Your task to perform on an android device: Open calendar and show me the first week of next month Image 0: 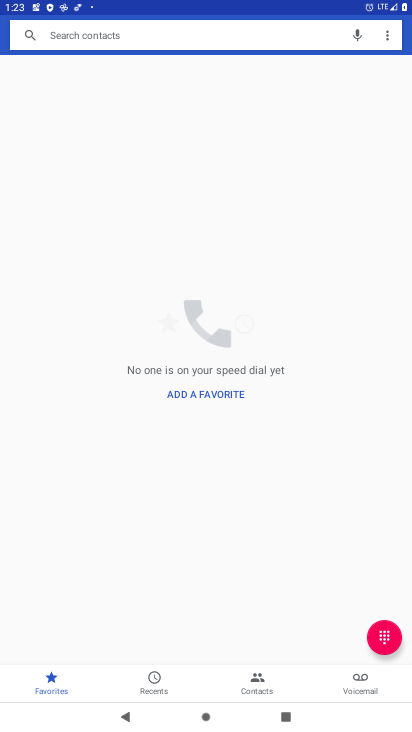
Step 0: press home button
Your task to perform on an android device: Open calendar and show me the first week of next month Image 1: 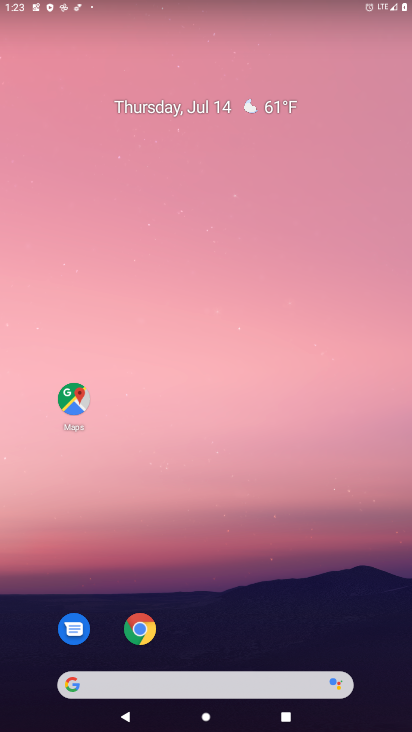
Step 1: drag from (233, 576) to (185, 187)
Your task to perform on an android device: Open calendar and show me the first week of next month Image 2: 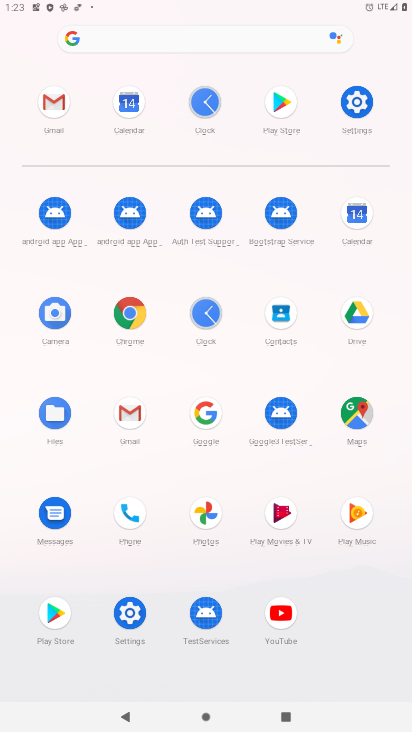
Step 2: click (349, 207)
Your task to perform on an android device: Open calendar and show me the first week of next month Image 3: 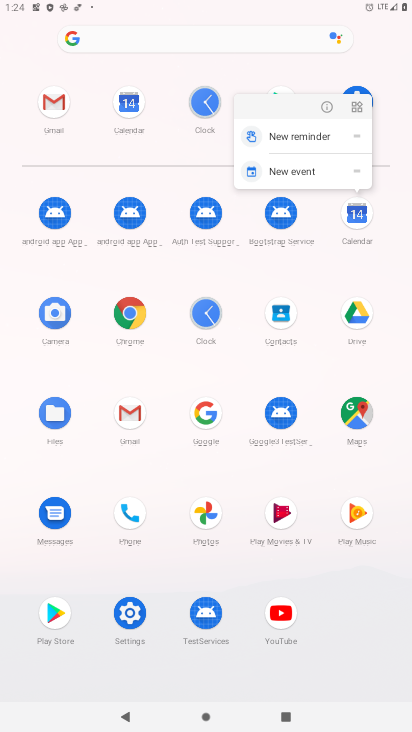
Step 3: click (356, 216)
Your task to perform on an android device: Open calendar and show me the first week of next month Image 4: 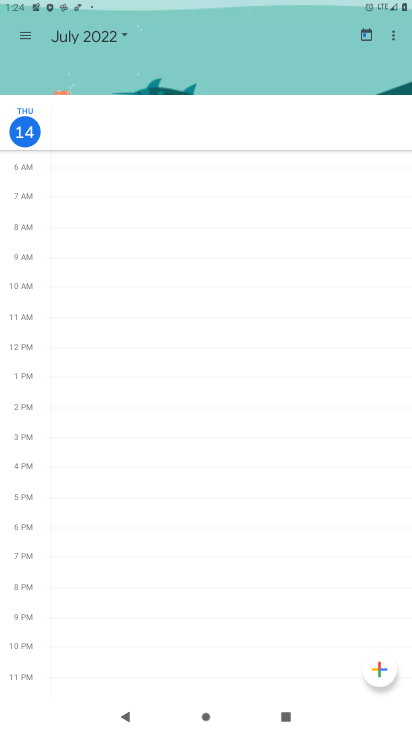
Step 4: click (19, 27)
Your task to perform on an android device: Open calendar and show me the first week of next month Image 5: 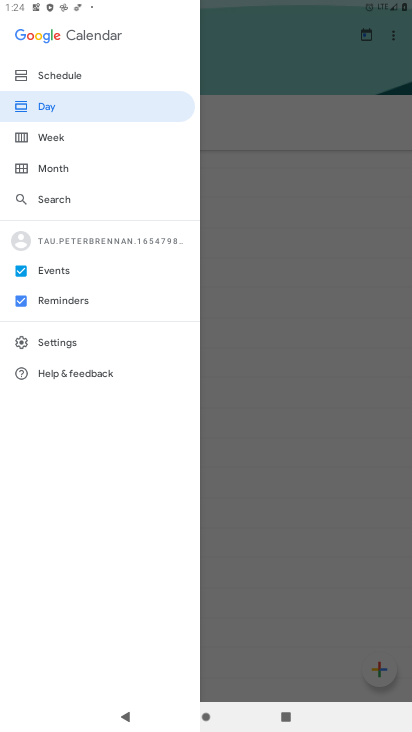
Step 5: click (45, 134)
Your task to perform on an android device: Open calendar and show me the first week of next month Image 6: 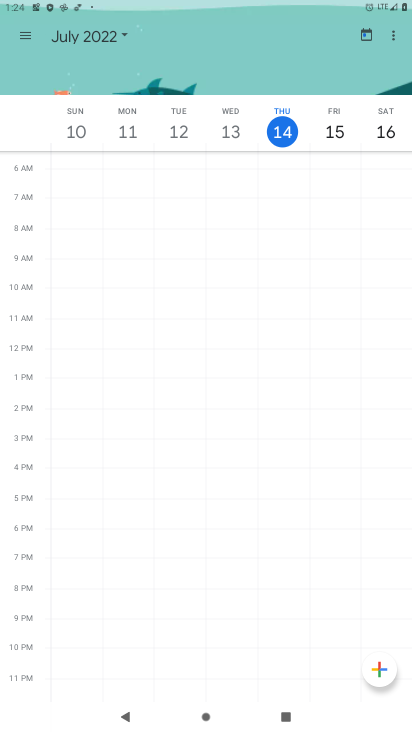
Step 6: click (117, 29)
Your task to perform on an android device: Open calendar and show me the first week of next month Image 7: 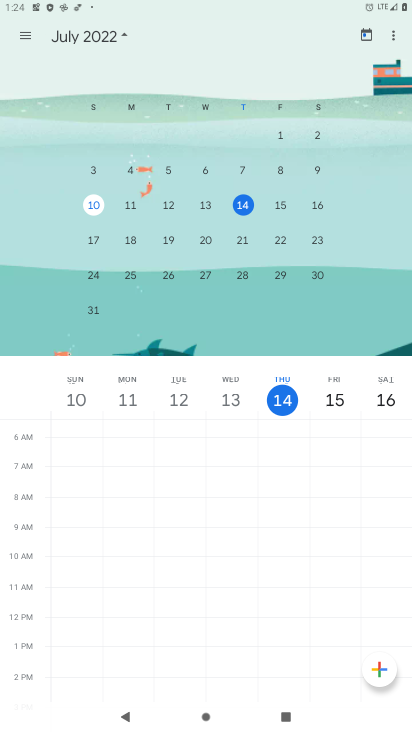
Step 7: drag from (315, 211) to (21, 87)
Your task to perform on an android device: Open calendar and show me the first week of next month Image 8: 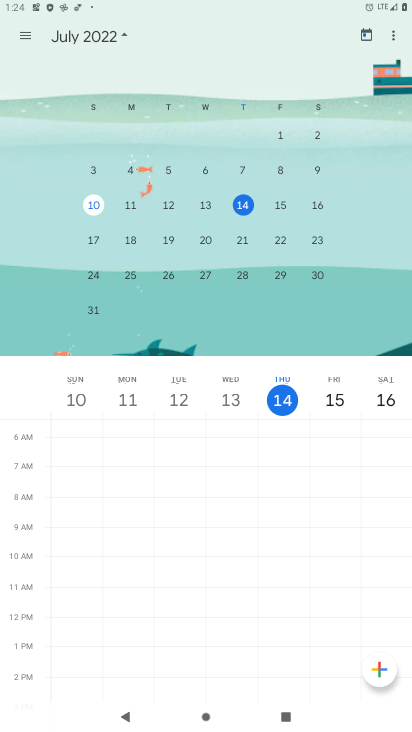
Step 8: drag from (355, 163) to (75, 191)
Your task to perform on an android device: Open calendar and show me the first week of next month Image 9: 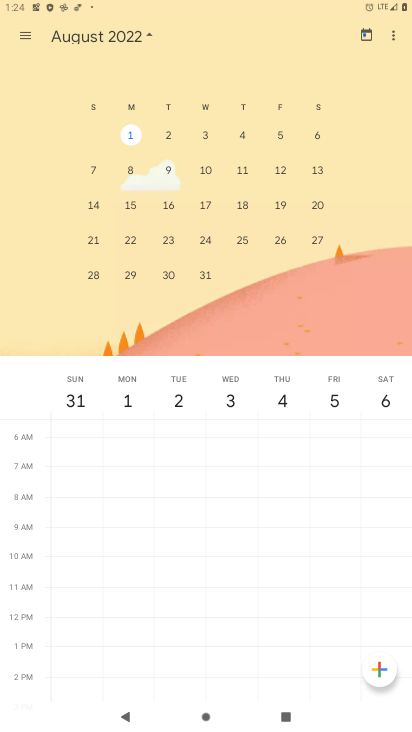
Step 9: click (134, 133)
Your task to perform on an android device: Open calendar and show me the first week of next month Image 10: 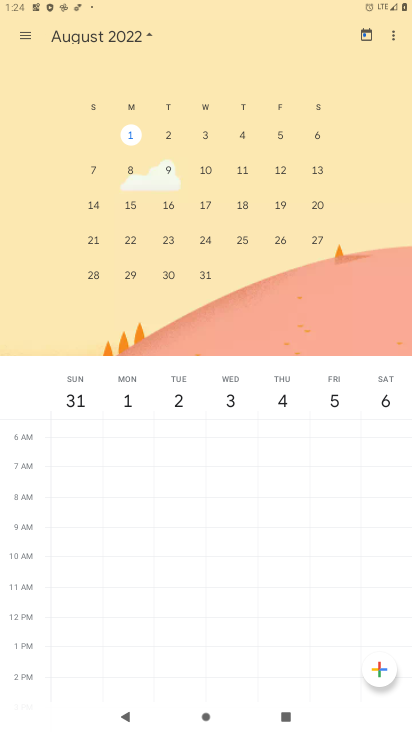
Step 10: task complete